Your task to perform on an android device: Open Chrome and go to settings Image 0: 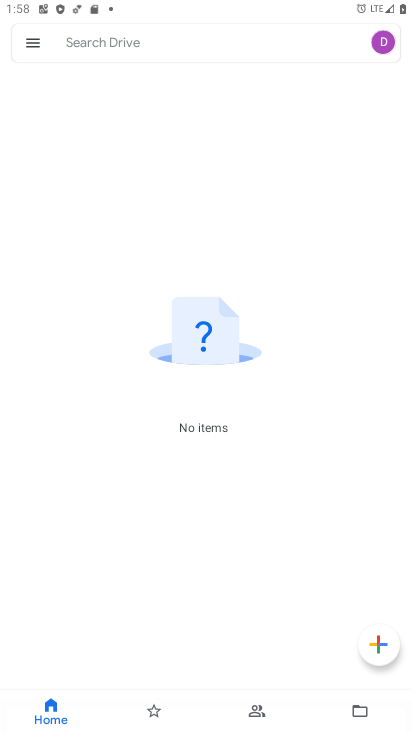
Step 0: press home button
Your task to perform on an android device: Open Chrome and go to settings Image 1: 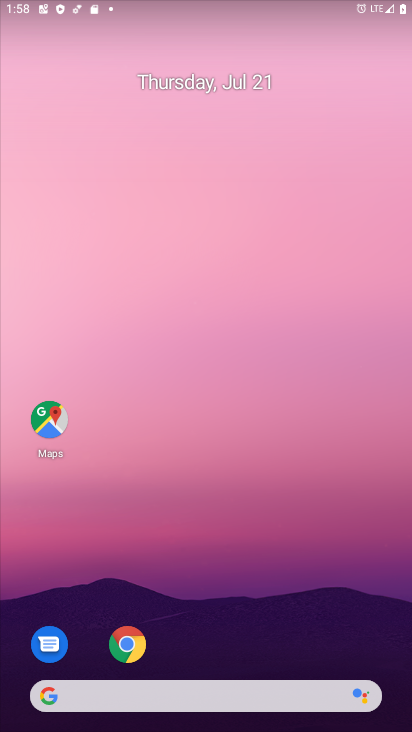
Step 1: click (128, 651)
Your task to perform on an android device: Open Chrome and go to settings Image 2: 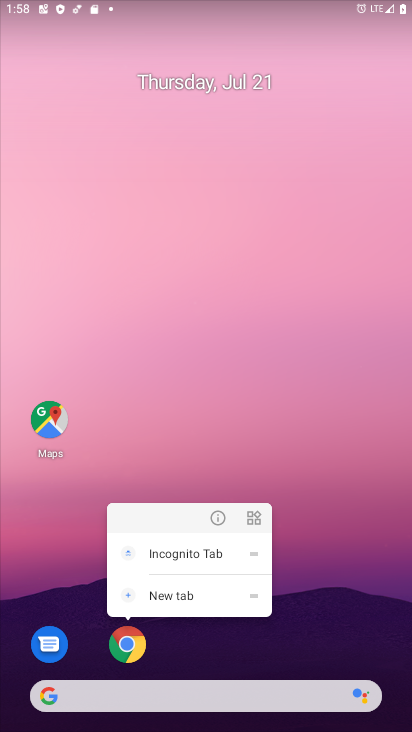
Step 2: click (129, 651)
Your task to perform on an android device: Open Chrome and go to settings Image 3: 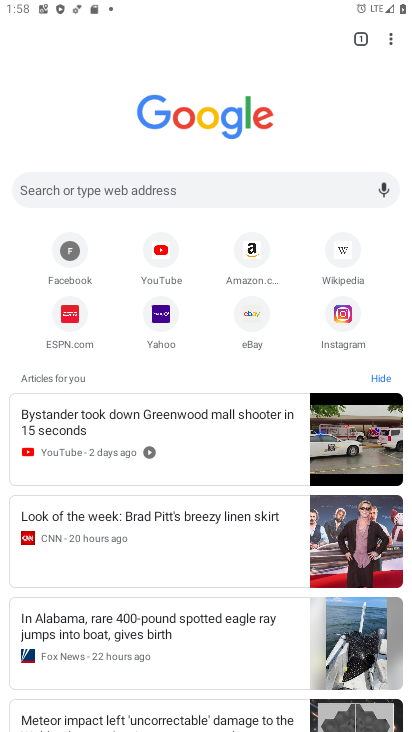
Step 3: click (396, 37)
Your task to perform on an android device: Open Chrome and go to settings Image 4: 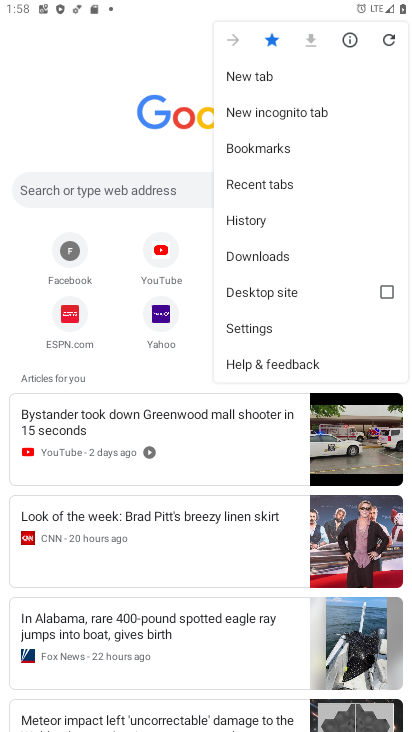
Step 4: click (269, 341)
Your task to perform on an android device: Open Chrome and go to settings Image 5: 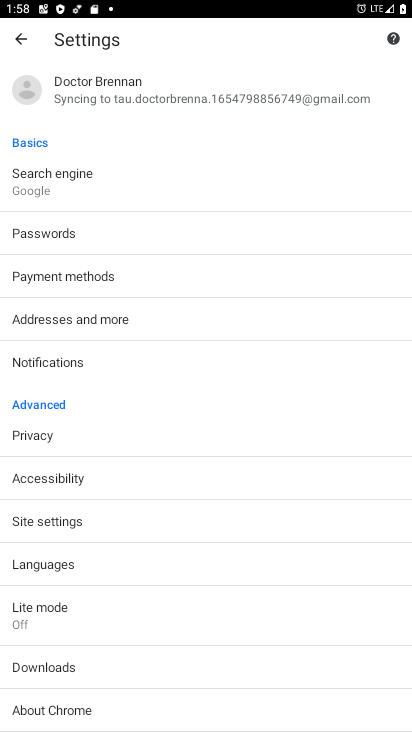
Step 5: task complete